Your task to perform on an android device: turn off airplane mode Image 0: 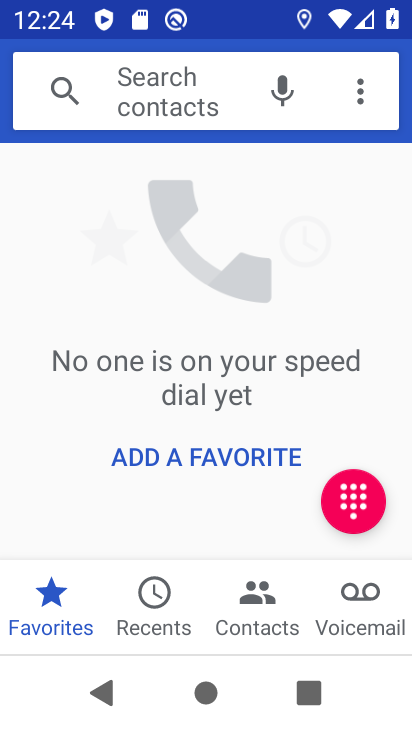
Step 0: press home button
Your task to perform on an android device: turn off airplane mode Image 1: 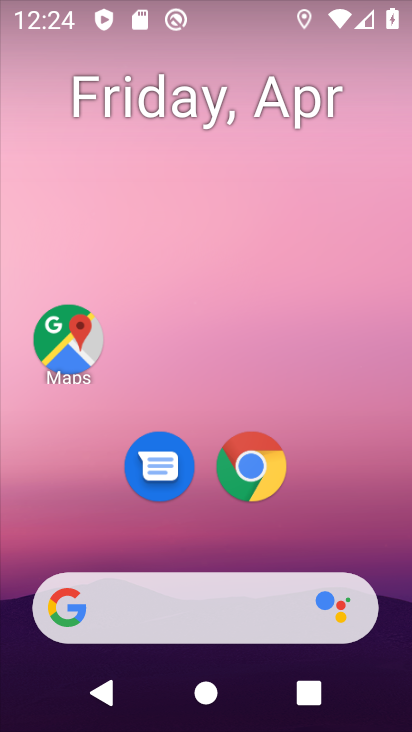
Step 1: drag from (345, 371) to (325, 100)
Your task to perform on an android device: turn off airplane mode Image 2: 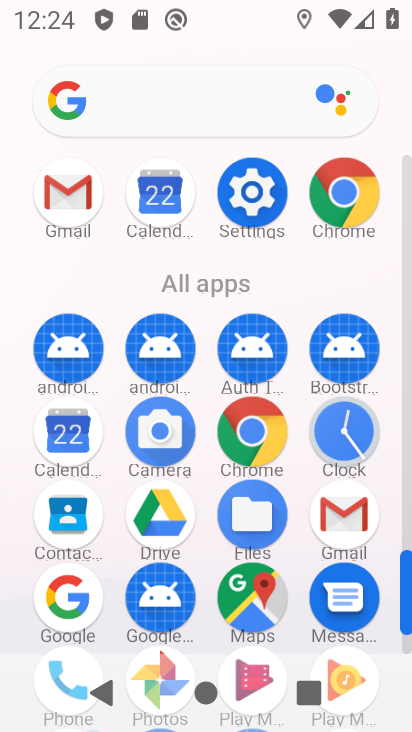
Step 2: click (249, 219)
Your task to perform on an android device: turn off airplane mode Image 3: 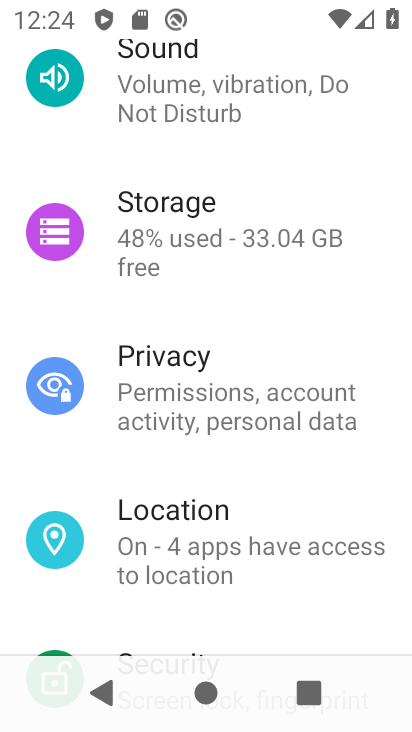
Step 3: drag from (288, 108) to (287, 550)
Your task to perform on an android device: turn off airplane mode Image 4: 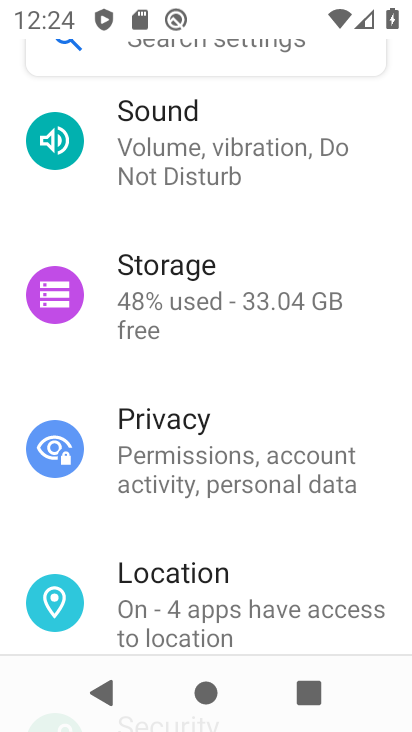
Step 4: drag from (328, 220) to (310, 528)
Your task to perform on an android device: turn off airplane mode Image 5: 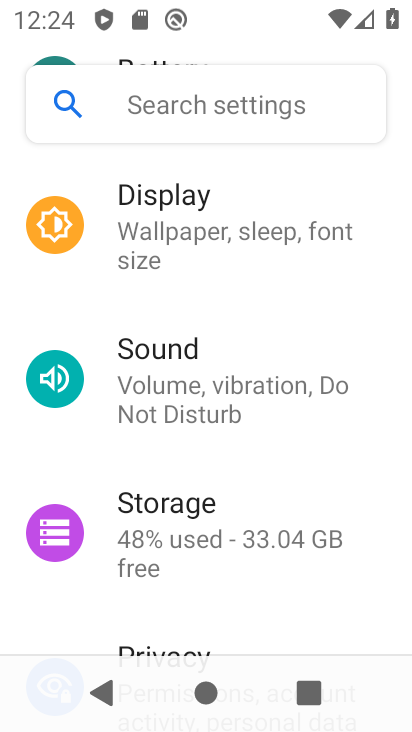
Step 5: drag from (282, 347) to (283, 558)
Your task to perform on an android device: turn off airplane mode Image 6: 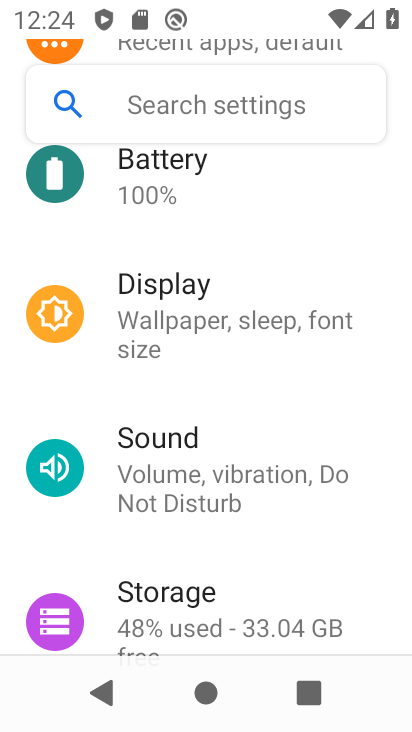
Step 6: drag from (290, 253) to (271, 549)
Your task to perform on an android device: turn off airplane mode Image 7: 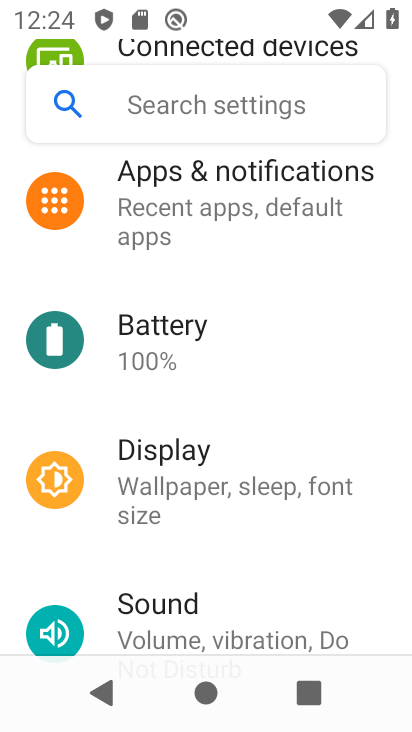
Step 7: drag from (283, 310) to (283, 590)
Your task to perform on an android device: turn off airplane mode Image 8: 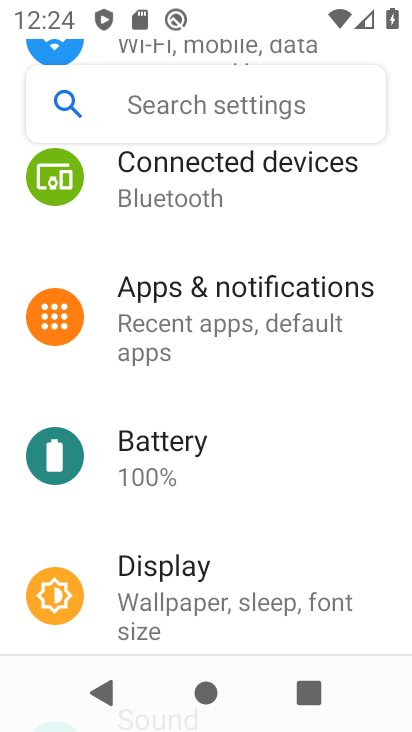
Step 8: drag from (272, 209) to (270, 629)
Your task to perform on an android device: turn off airplane mode Image 9: 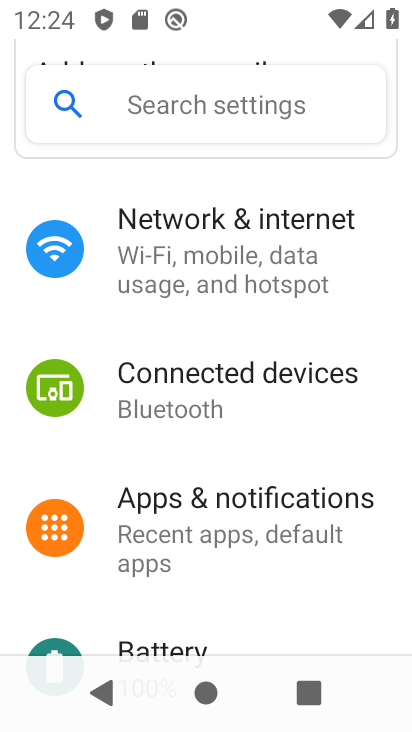
Step 9: click (255, 278)
Your task to perform on an android device: turn off airplane mode Image 10: 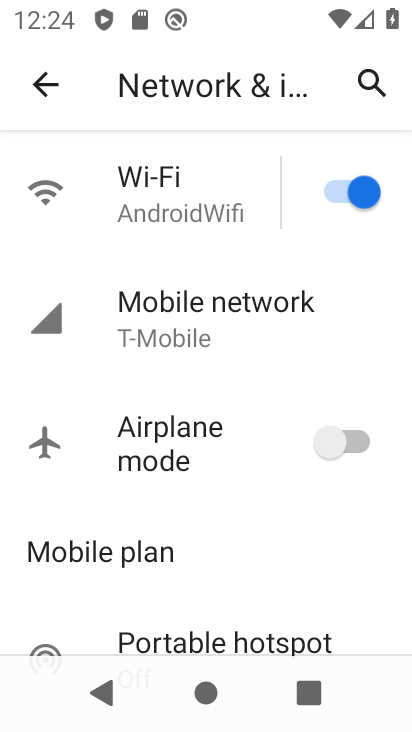
Step 10: task complete